Your task to perform on an android device: search for starred emails in the gmail app Image 0: 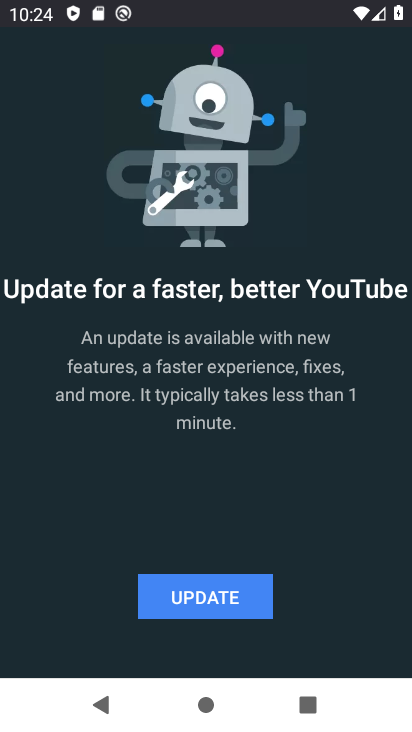
Step 0: press home button
Your task to perform on an android device: search for starred emails in the gmail app Image 1: 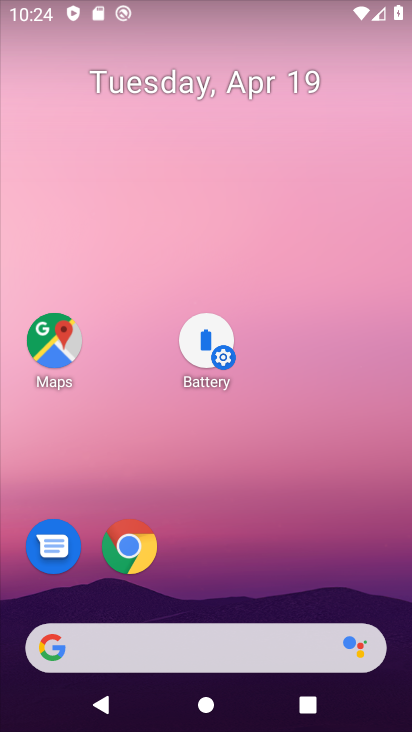
Step 1: drag from (277, 506) to (377, 3)
Your task to perform on an android device: search for starred emails in the gmail app Image 2: 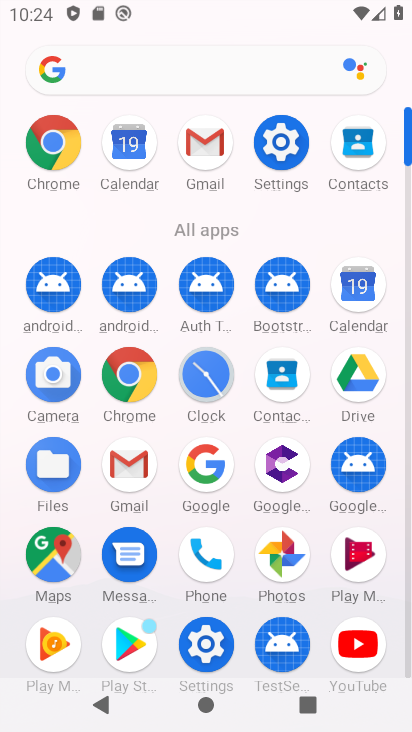
Step 2: click (209, 134)
Your task to perform on an android device: search for starred emails in the gmail app Image 3: 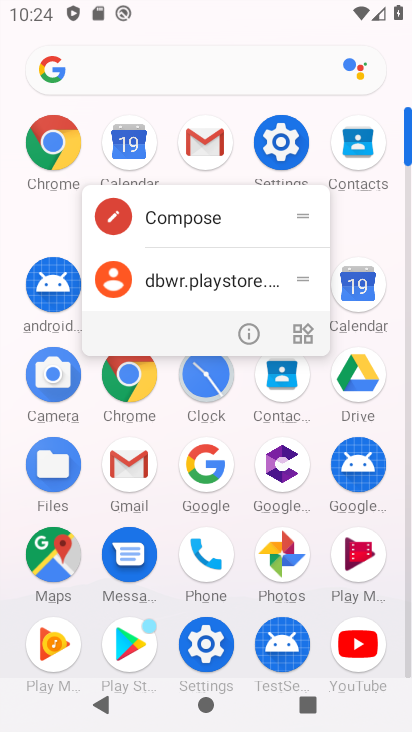
Step 3: click (197, 138)
Your task to perform on an android device: search for starred emails in the gmail app Image 4: 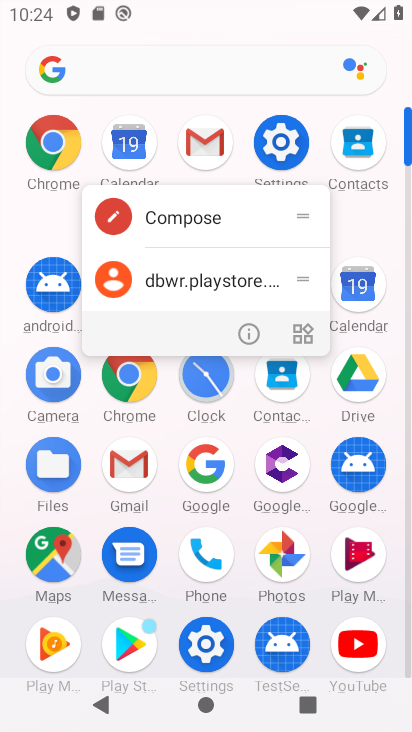
Step 4: click (196, 140)
Your task to perform on an android device: search for starred emails in the gmail app Image 5: 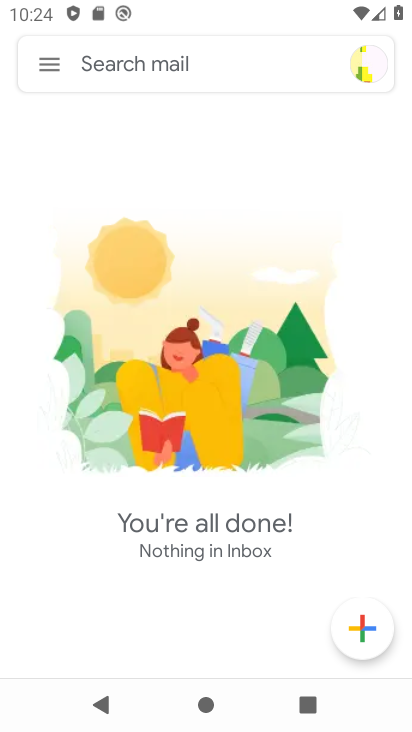
Step 5: click (47, 59)
Your task to perform on an android device: search for starred emails in the gmail app Image 6: 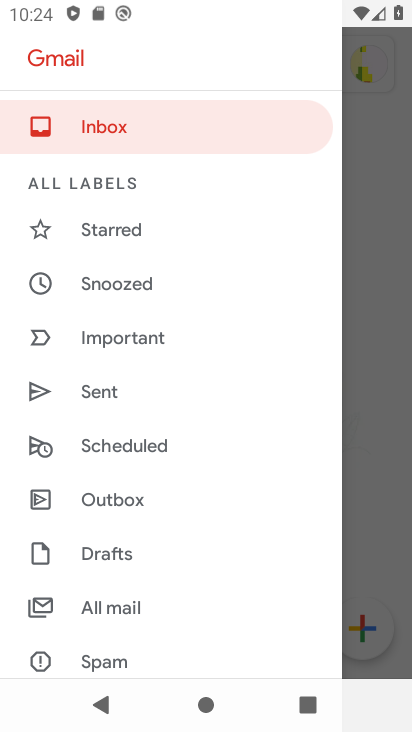
Step 6: click (116, 230)
Your task to perform on an android device: search for starred emails in the gmail app Image 7: 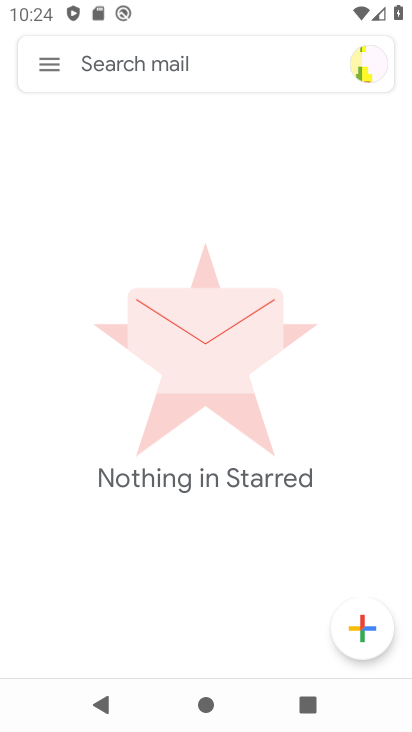
Step 7: task complete